Your task to perform on an android device: Go to location settings Image 0: 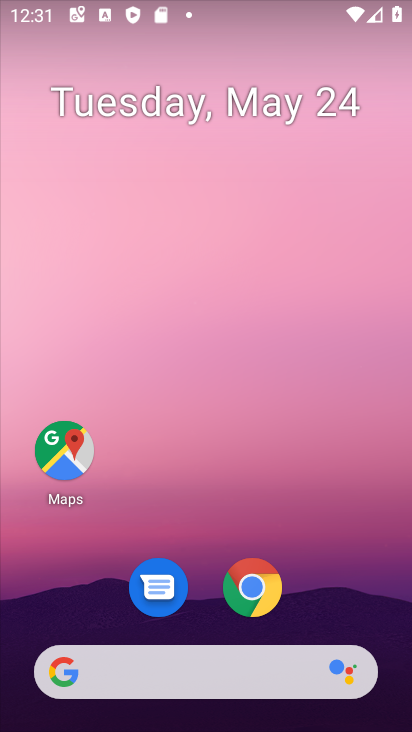
Step 0: drag from (257, 730) to (215, 7)
Your task to perform on an android device: Go to location settings Image 1: 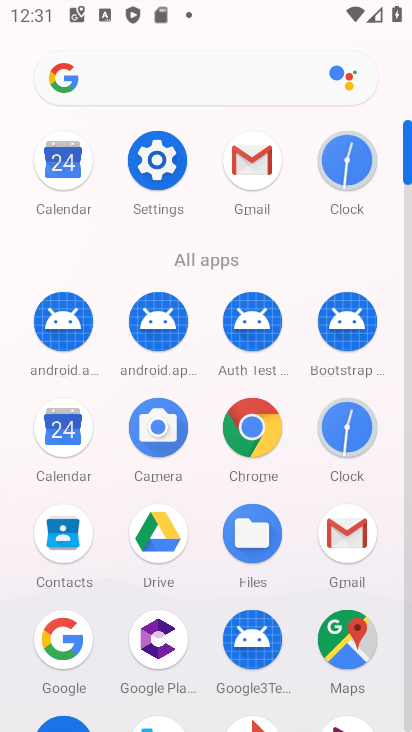
Step 1: click (153, 158)
Your task to perform on an android device: Go to location settings Image 2: 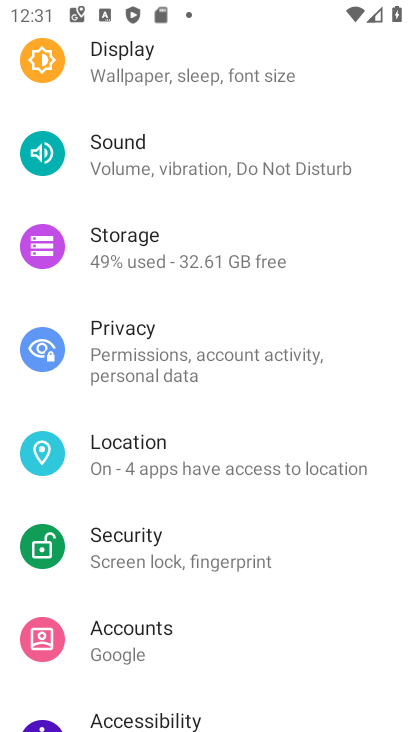
Step 2: click (184, 461)
Your task to perform on an android device: Go to location settings Image 3: 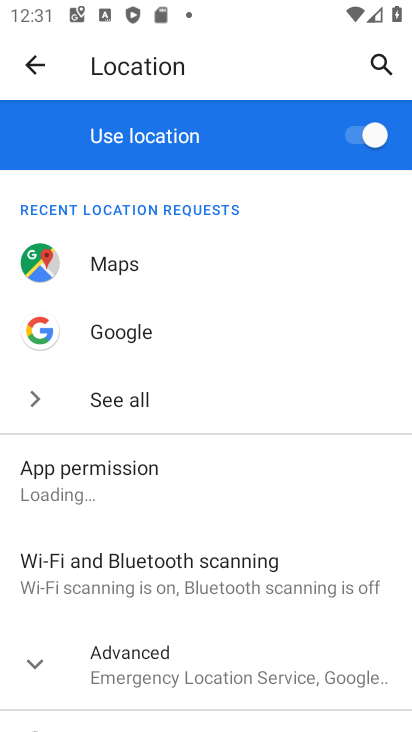
Step 3: task complete